Your task to perform on an android device: open a bookmark in the chrome app Image 0: 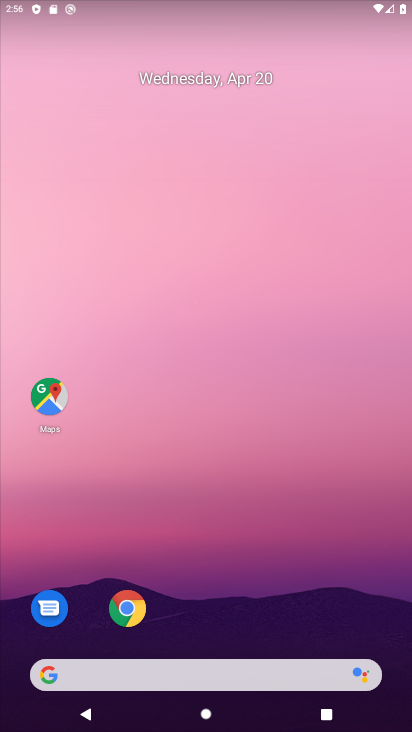
Step 0: click (136, 610)
Your task to perform on an android device: open a bookmark in the chrome app Image 1: 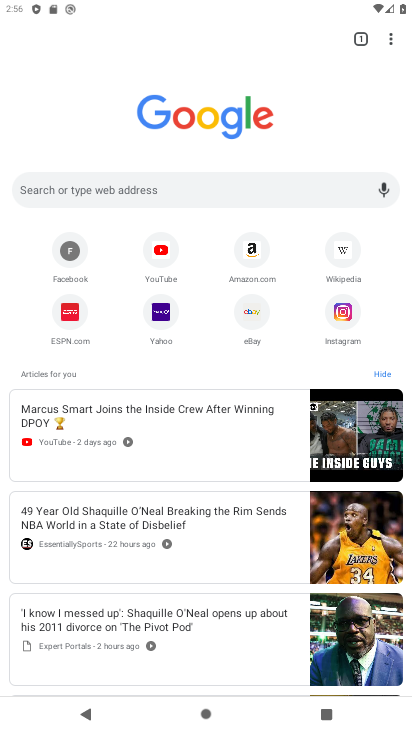
Step 1: task complete